Your task to perform on an android device: stop showing notifications on the lock screen Image 0: 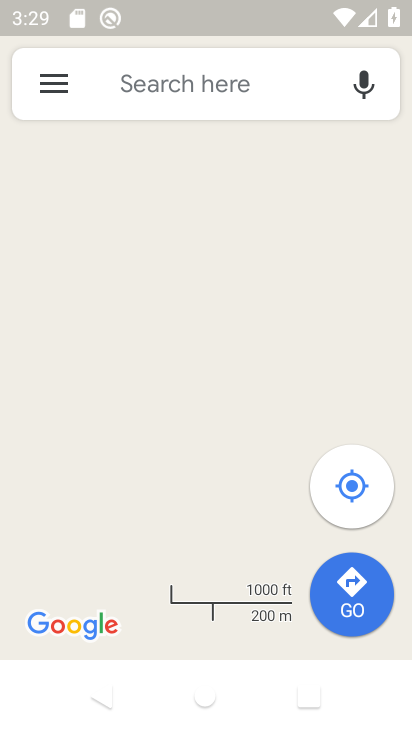
Step 0: press home button
Your task to perform on an android device: stop showing notifications on the lock screen Image 1: 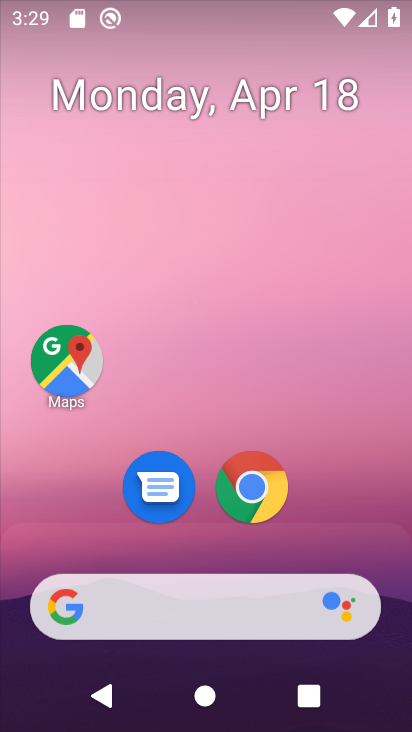
Step 1: drag from (203, 570) to (166, 11)
Your task to perform on an android device: stop showing notifications on the lock screen Image 2: 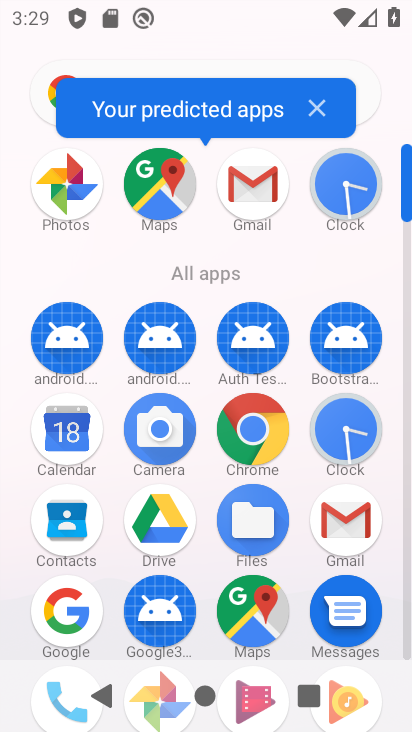
Step 2: drag from (206, 561) to (206, 115)
Your task to perform on an android device: stop showing notifications on the lock screen Image 3: 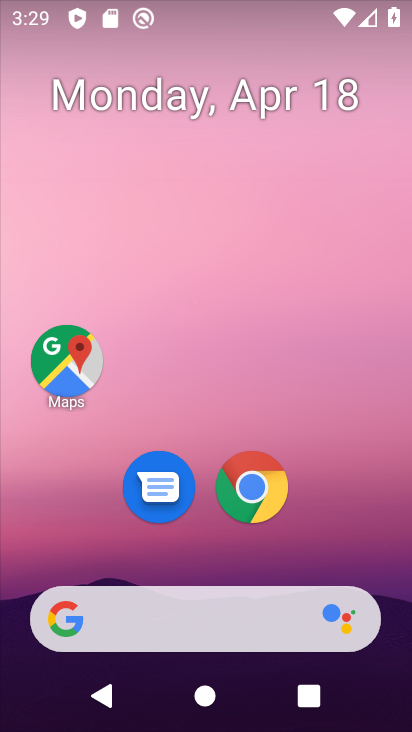
Step 3: drag from (209, 578) to (138, 1)
Your task to perform on an android device: stop showing notifications on the lock screen Image 4: 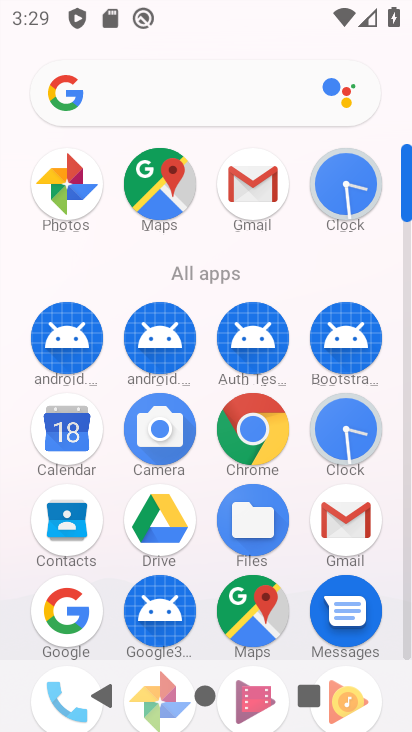
Step 4: drag from (199, 556) to (199, 30)
Your task to perform on an android device: stop showing notifications on the lock screen Image 5: 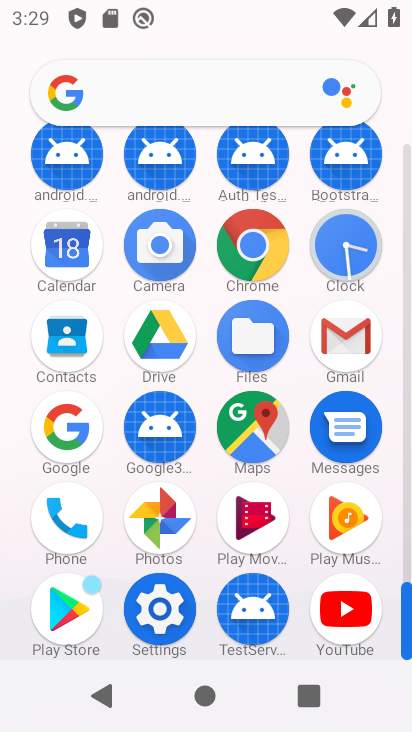
Step 5: click (169, 611)
Your task to perform on an android device: stop showing notifications on the lock screen Image 6: 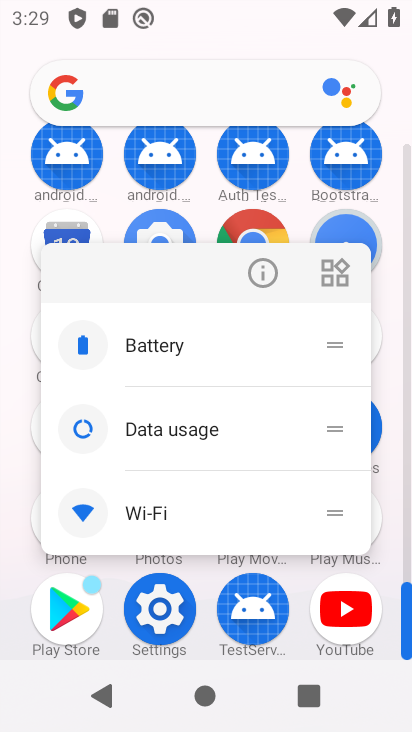
Step 6: click (169, 611)
Your task to perform on an android device: stop showing notifications on the lock screen Image 7: 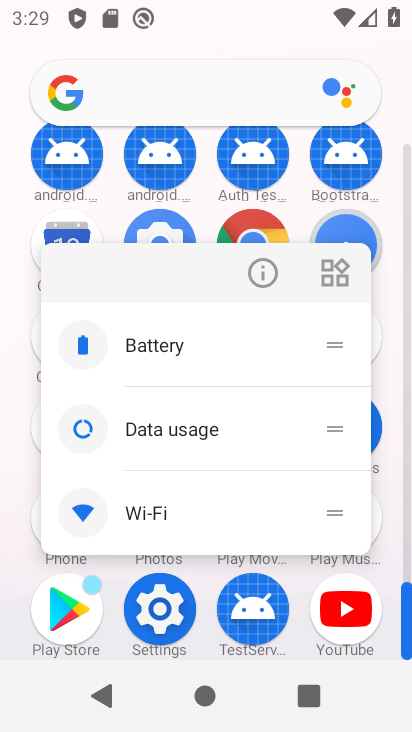
Step 7: click (166, 609)
Your task to perform on an android device: stop showing notifications on the lock screen Image 8: 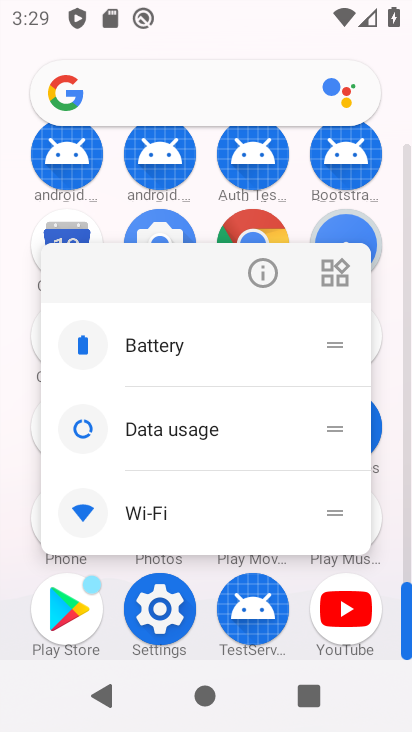
Step 8: click (166, 609)
Your task to perform on an android device: stop showing notifications on the lock screen Image 9: 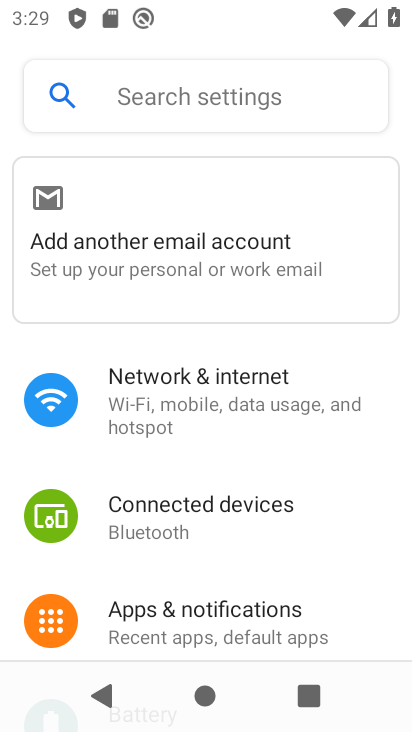
Step 9: click (218, 598)
Your task to perform on an android device: stop showing notifications on the lock screen Image 10: 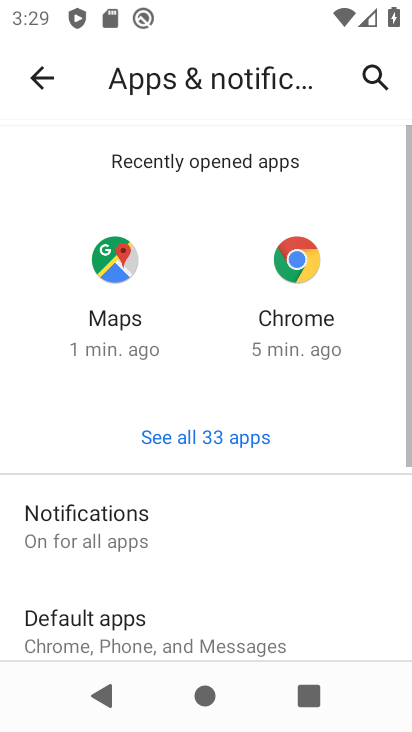
Step 10: click (124, 511)
Your task to perform on an android device: stop showing notifications on the lock screen Image 11: 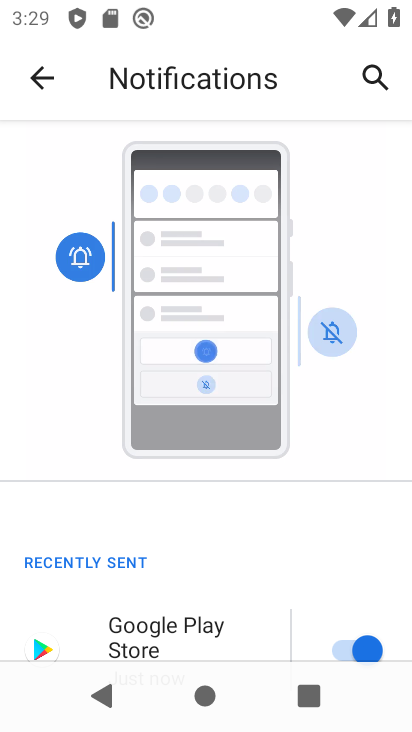
Step 11: drag from (178, 552) to (141, 47)
Your task to perform on an android device: stop showing notifications on the lock screen Image 12: 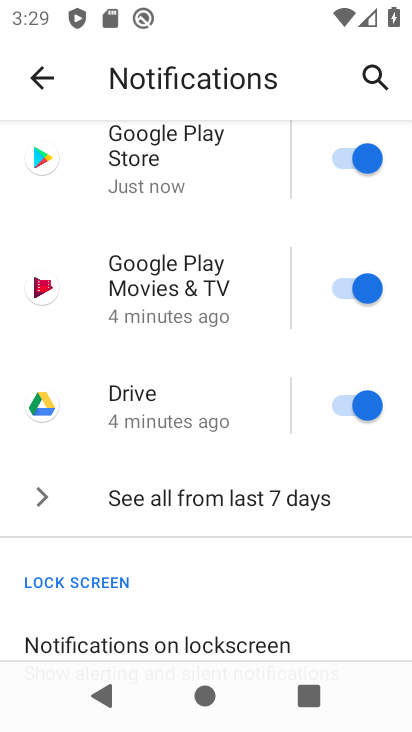
Step 12: click (127, 631)
Your task to perform on an android device: stop showing notifications on the lock screen Image 13: 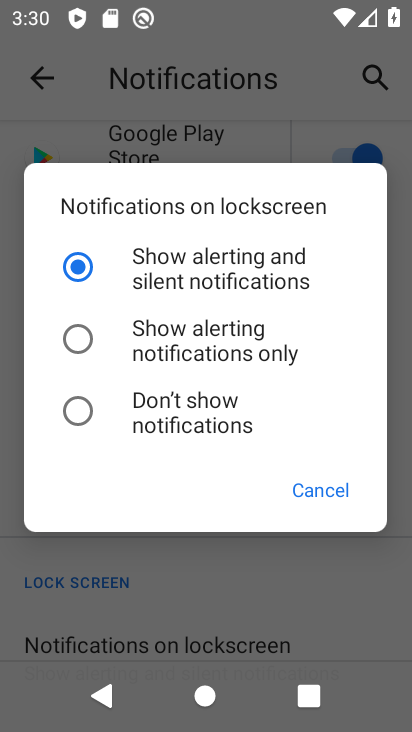
Step 13: click (122, 401)
Your task to perform on an android device: stop showing notifications on the lock screen Image 14: 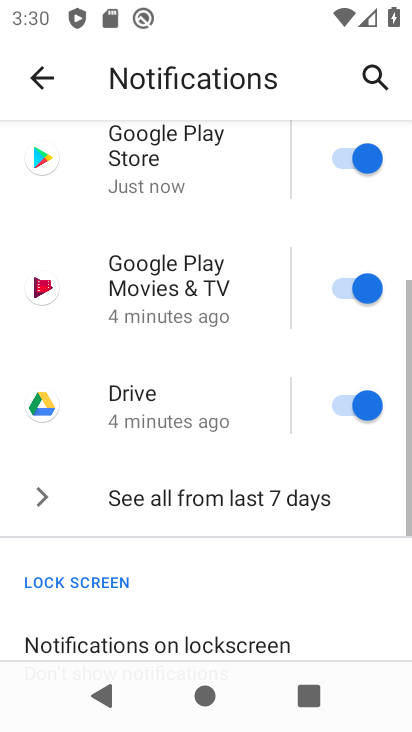
Step 14: task complete